Your task to perform on an android device: Go to display settings Image 0: 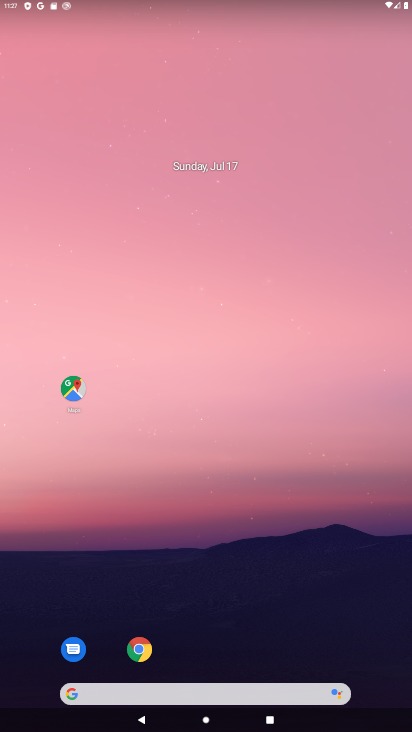
Step 0: drag from (193, 634) to (253, 15)
Your task to perform on an android device: Go to display settings Image 1: 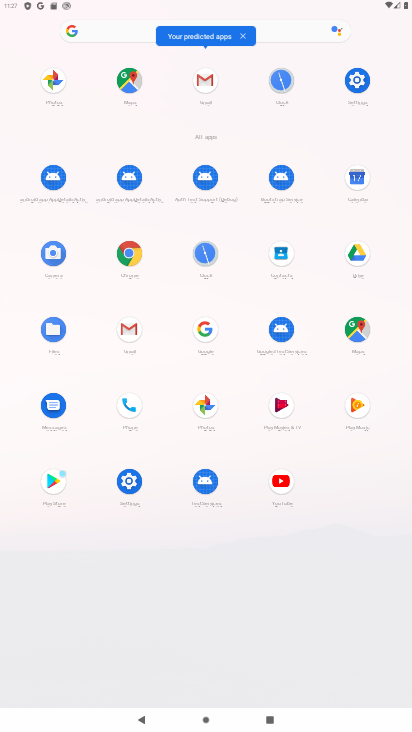
Step 1: click (364, 79)
Your task to perform on an android device: Go to display settings Image 2: 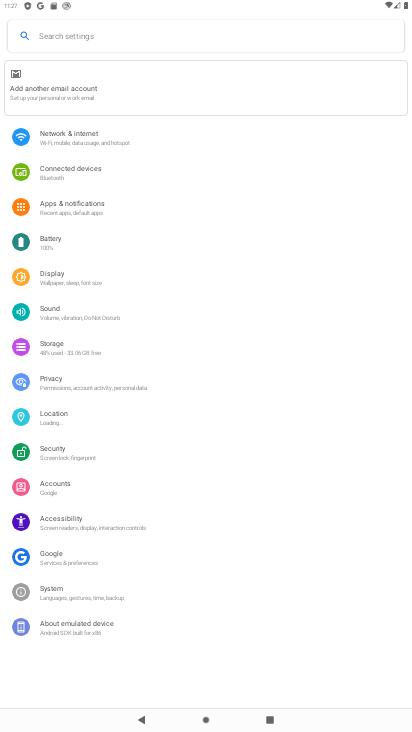
Step 2: click (116, 290)
Your task to perform on an android device: Go to display settings Image 3: 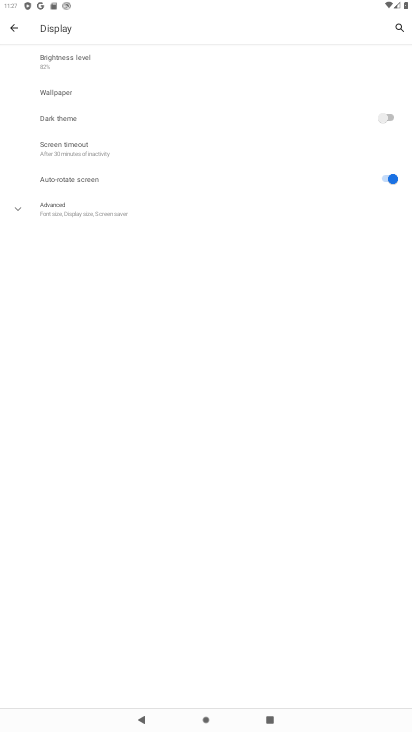
Step 3: task complete